Your task to perform on an android device: turn off improve location accuracy Image 0: 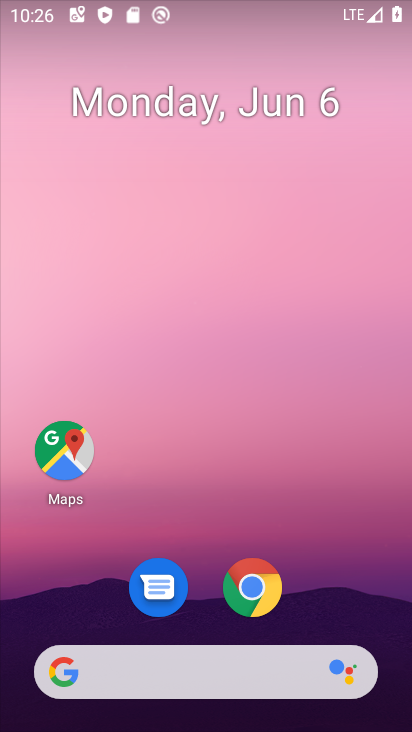
Step 0: drag from (227, 728) to (282, 76)
Your task to perform on an android device: turn off improve location accuracy Image 1: 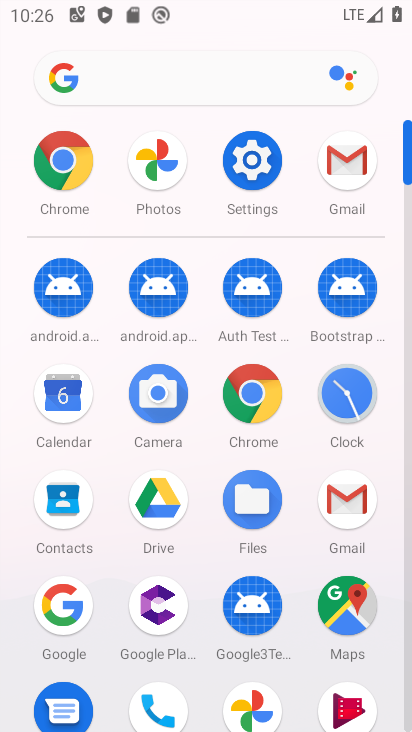
Step 1: click (257, 144)
Your task to perform on an android device: turn off improve location accuracy Image 2: 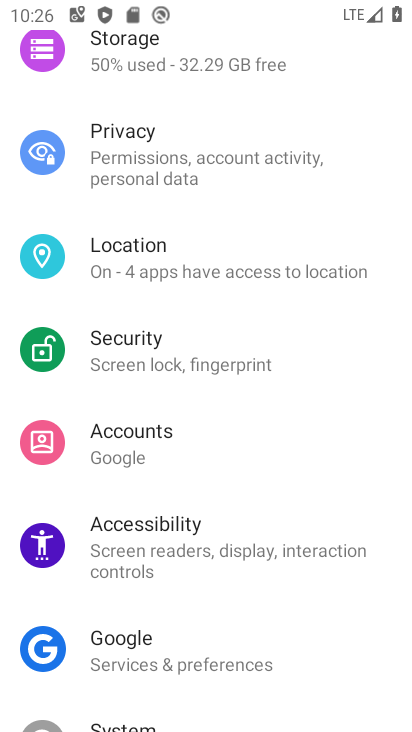
Step 2: click (252, 282)
Your task to perform on an android device: turn off improve location accuracy Image 3: 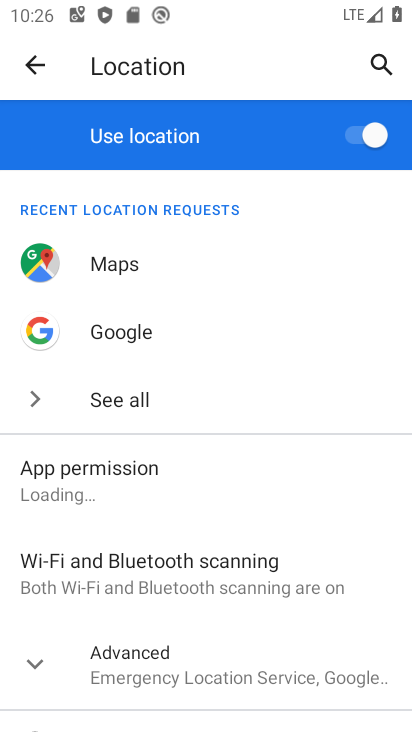
Step 3: click (274, 685)
Your task to perform on an android device: turn off improve location accuracy Image 4: 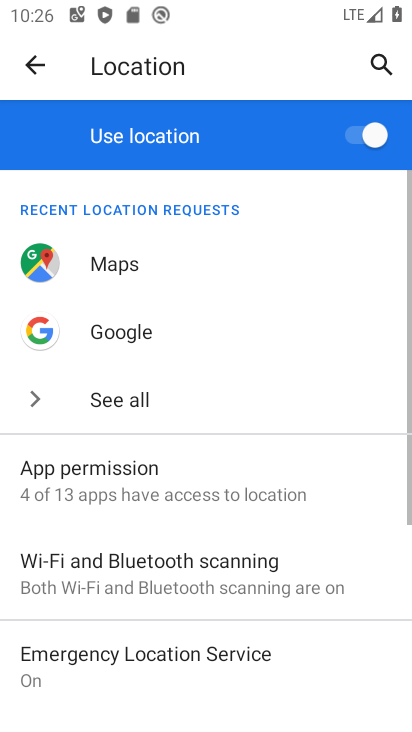
Step 4: drag from (357, 658) to (337, 204)
Your task to perform on an android device: turn off improve location accuracy Image 5: 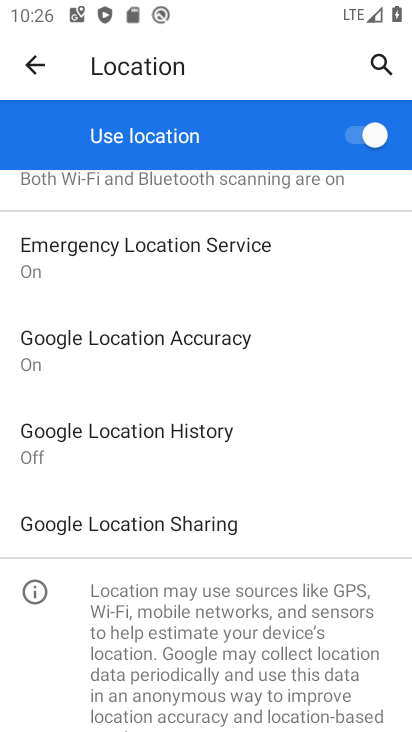
Step 5: click (227, 342)
Your task to perform on an android device: turn off improve location accuracy Image 6: 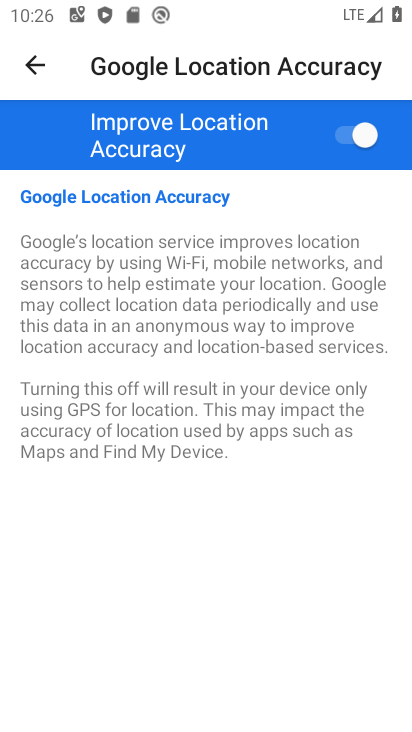
Step 6: click (370, 142)
Your task to perform on an android device: turn off improve location accuracy Image 7: 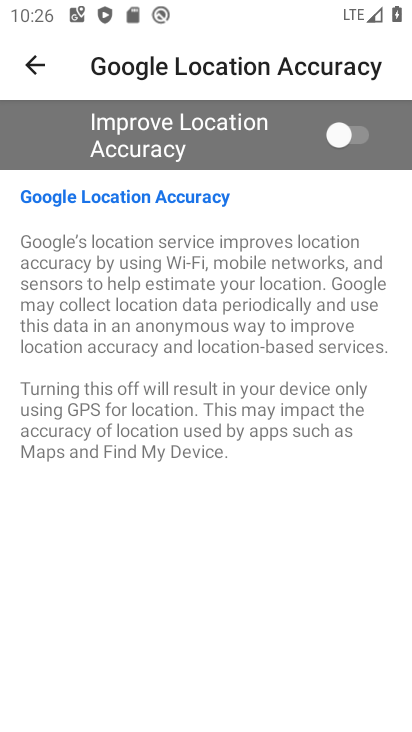
Step 7: task complete